Your task to perform on an android device: turn off javascript in the chrome app Image 0: 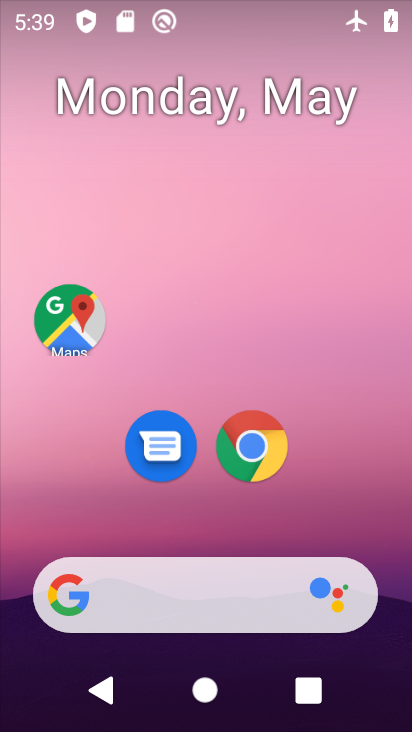
Step 0: click (255, 446)
Your task to perform on an android device: turn off javascript in the chrome app Image 1: 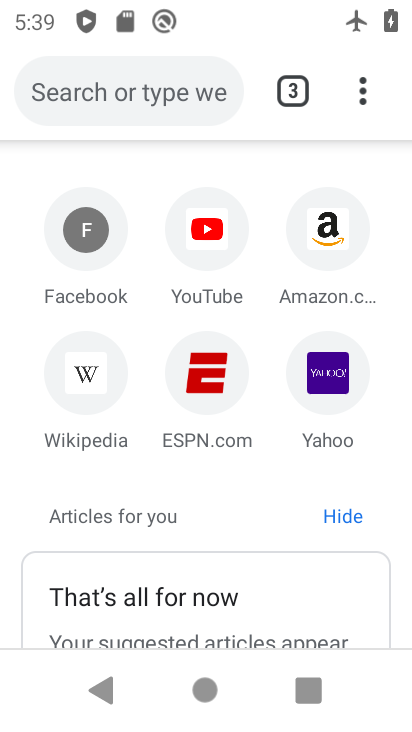
Step 1: click (368, 85)
Your task to perform on an android device: turn off javascript in the chrome app Image 2: 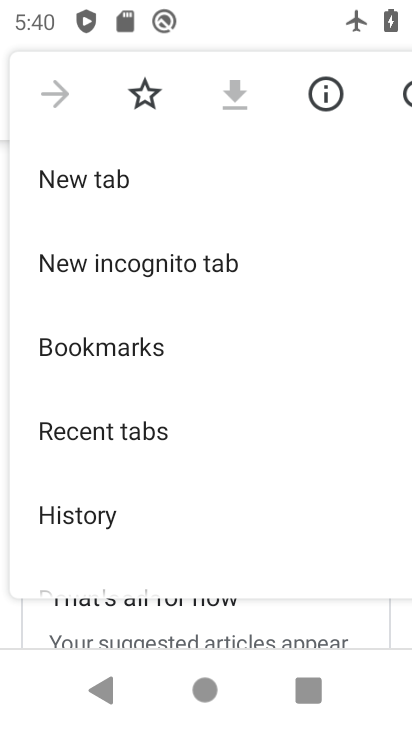
Step 2: drag from (224, 471) to (197, 103)
Your task to perform on an android device: turn off javascript in the chrome app Image 3: 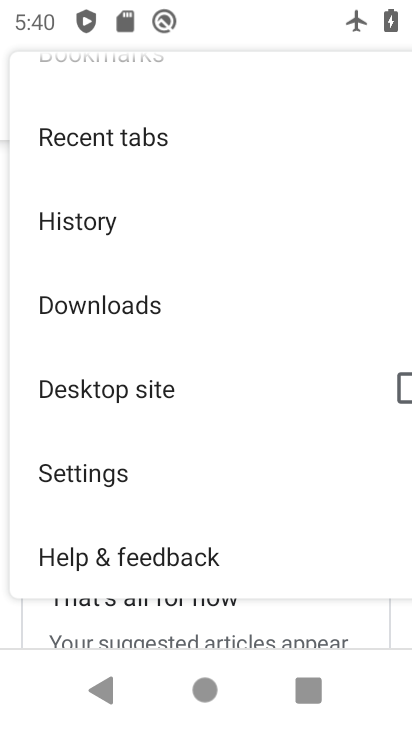
Step 3: click (75, 471)
Your task to perform on an android device: turn off javascript in the chrome app Image 4: 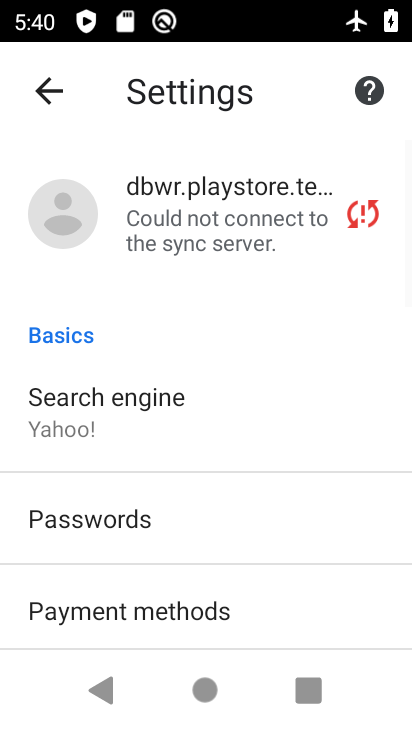
Step 4: drag from (204, 519) to (191, 183)
Your task to perform on an android device: turn off javascript in the chrome app Image 5: 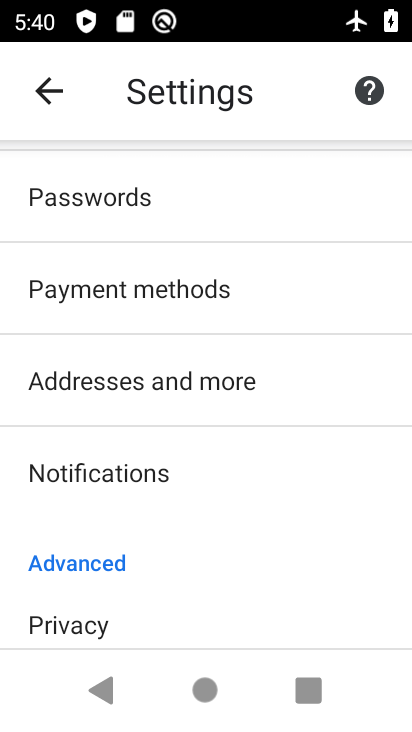
Step 5: drag from (260, 505) to (197, 238)
Your task to perform on an android device: turn off javascript in the chrome app Image 6: 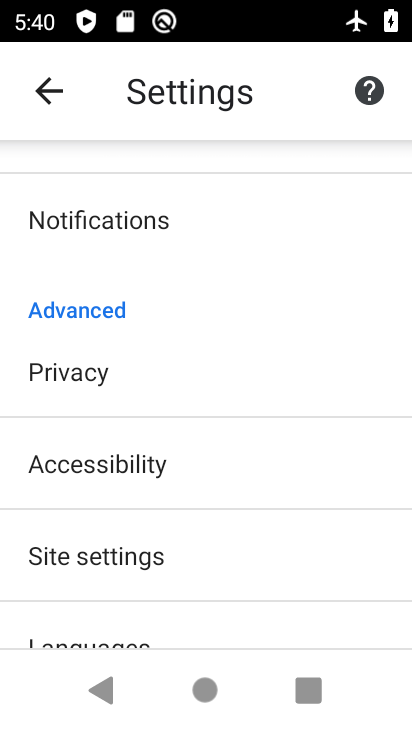
Step 6: click (117, 548)
Your task to perform on an android device: turn off javascript in the chrome app Image 7: 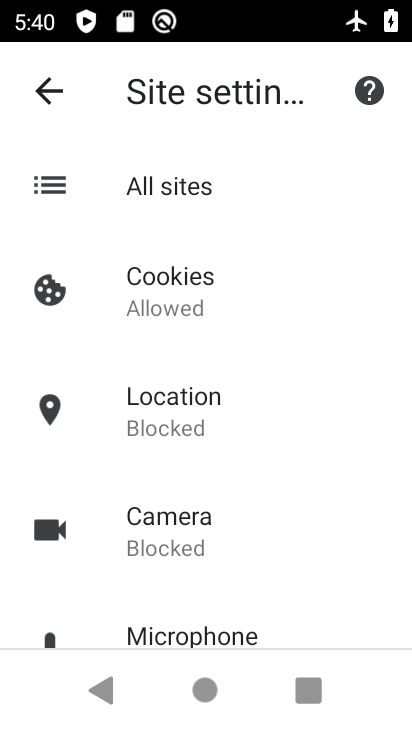
Step 7: drag from (336, 528) to (272, 271)
Your task to perform on an android device: turn off javascript in the chrome app Image 8: 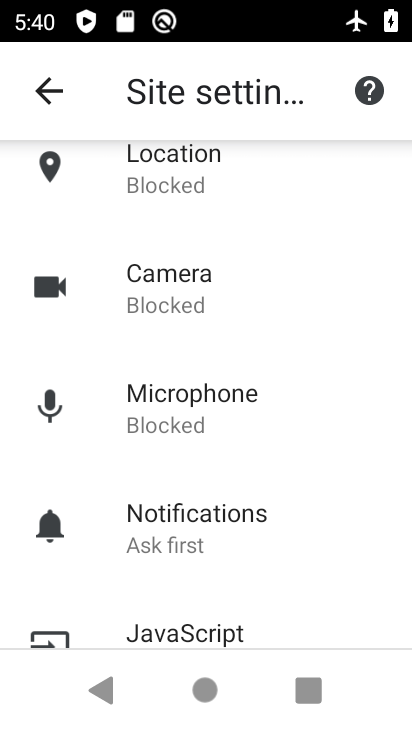
Step 8: drag from (320, 419) to (284, 144)
Your task to perform on an android device: turn off javascript in the chrome app Image 9: 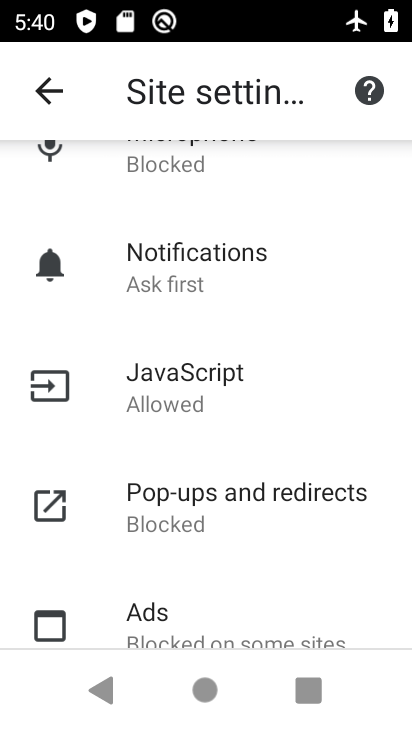
Step 9: click (201, 364)
Your task to perform on an android device: turn off javascript in the chrome app Image 10: 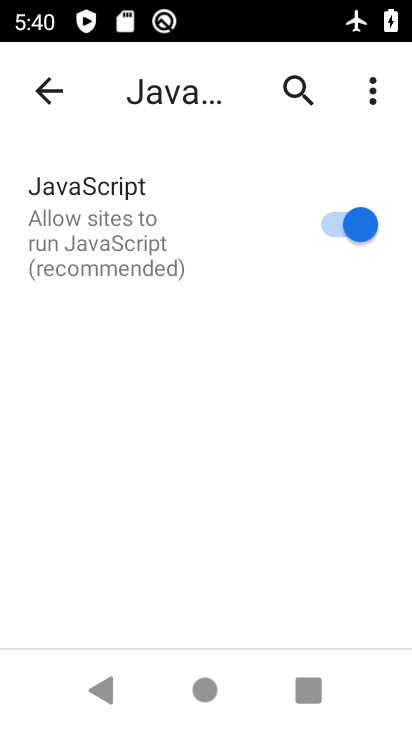
Step 10: click (368, 231)
Your task to perform on an android device: turn off javascript in the chrome app Image 11: 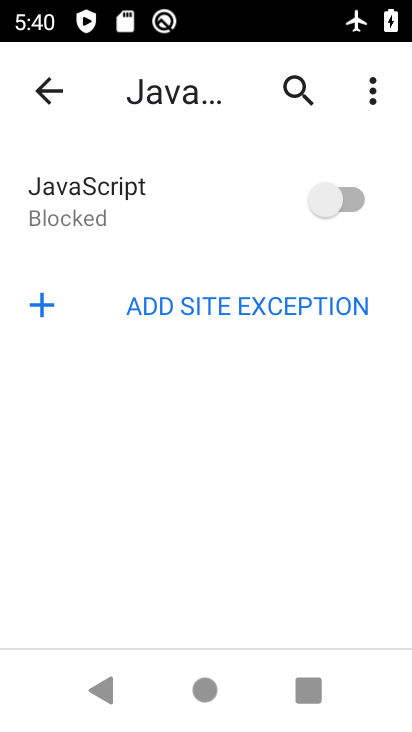
Step 11: task complete